Your task to perform on an android device: Open Chrome and go to settings Image 0: 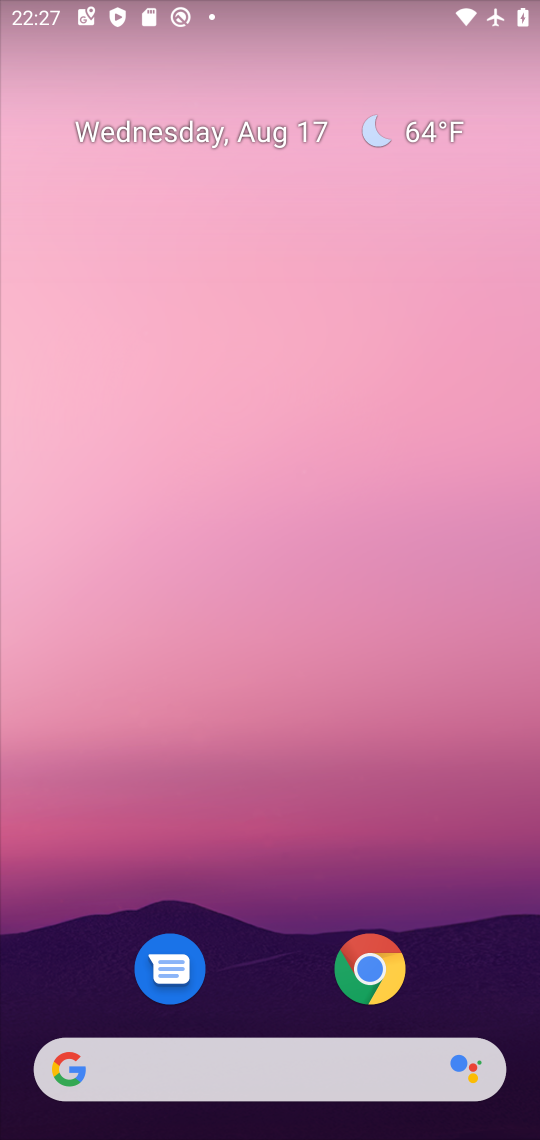
Step 0: click (378, 970)
Your task to perform on an android device: Open Chrome and go to settings Image 1: 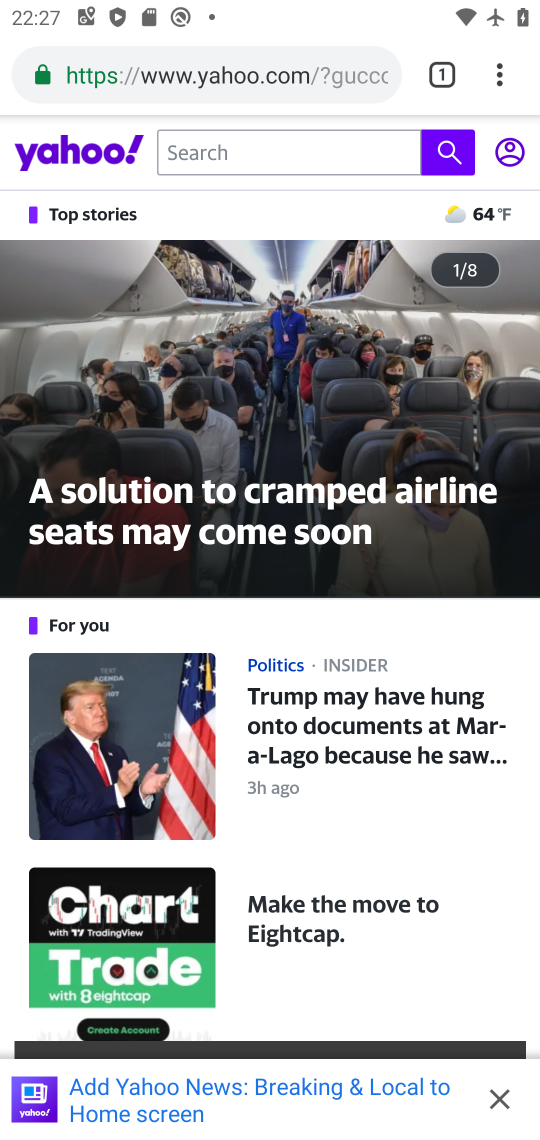
Step 1: click (493, 73)
Your task to perform on an android device: Open Chrome and go to settings Image 2: 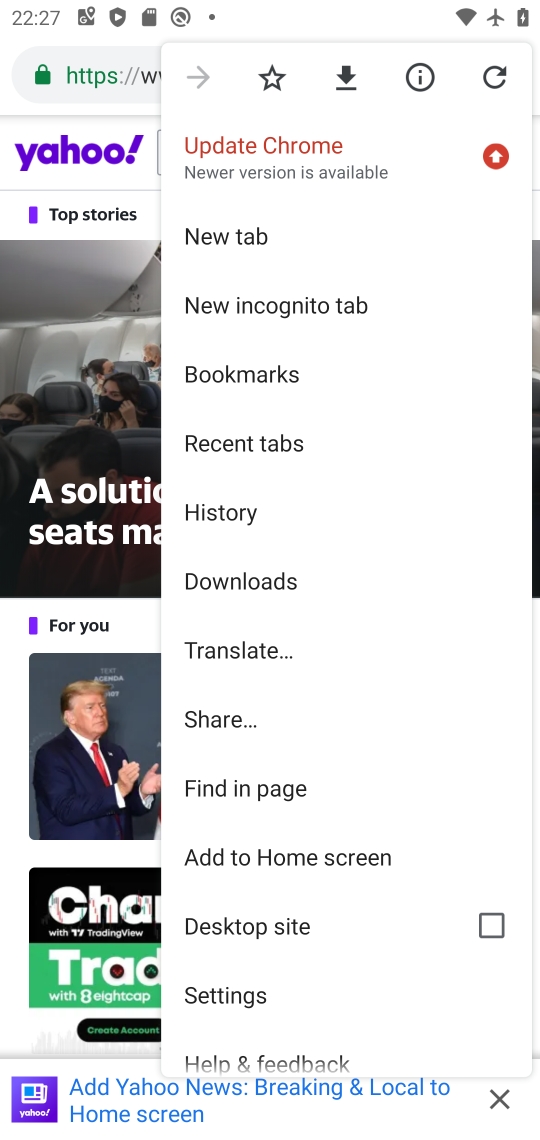
Step 2: click (247, 987)
Your task to perform on an android device: Open Chrome and go to settings Image 3: 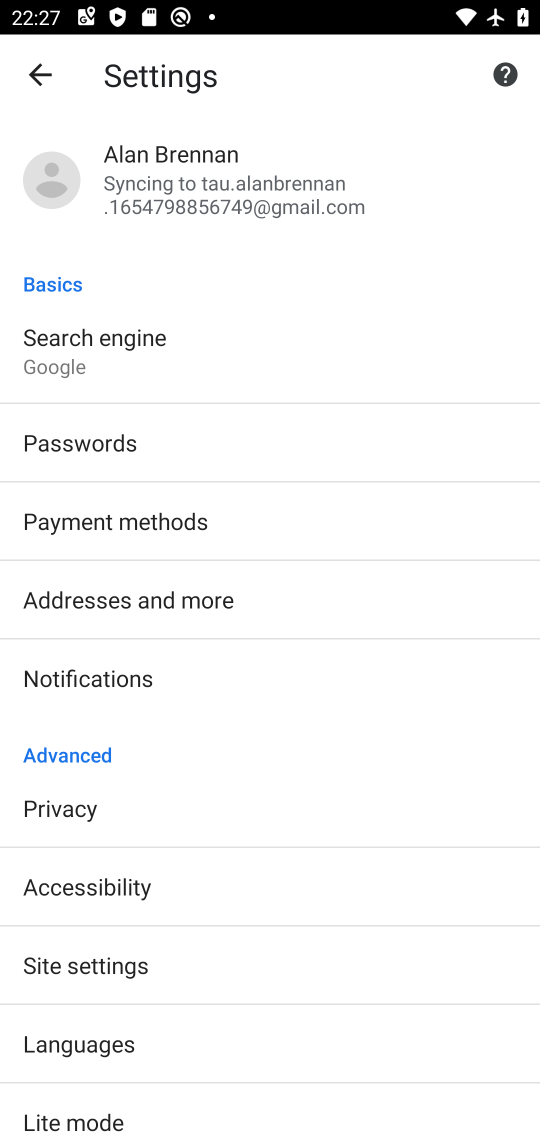
Step 3: task complete